Your task to perform on an android device: search for starred emails in the gmail app Image 0: 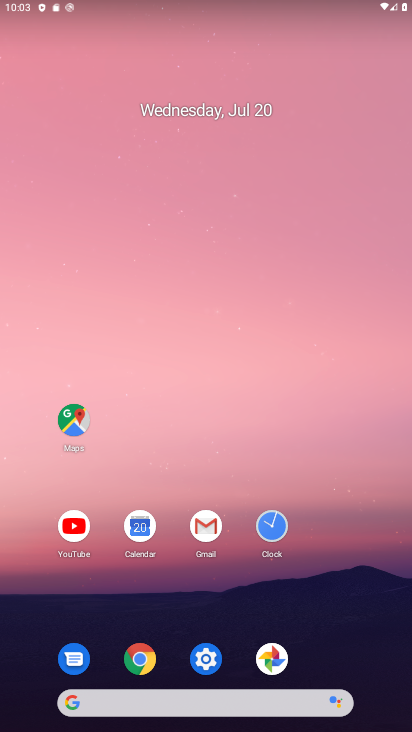
Step 0: click (209, 532)
Your task to perform on an android device: search for starred emails in the gmail app Image 1: 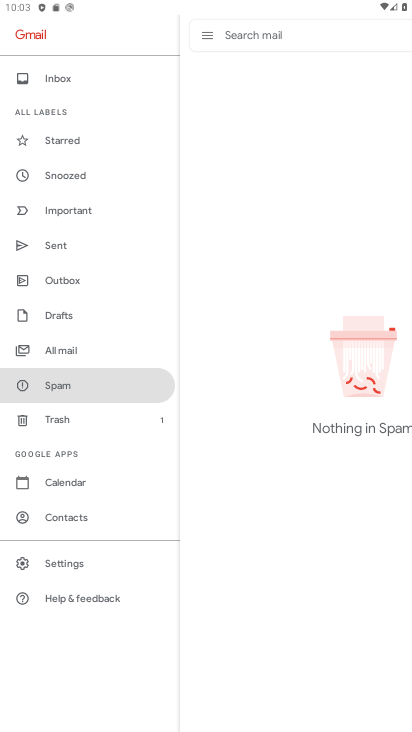
Step 1: click (68, 140)
Your task to perform on an android device: search for starred emails in the gmail app Image 2: 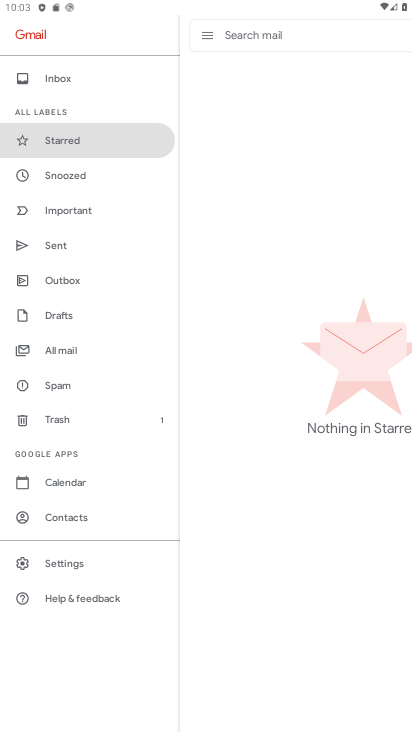
Step 2: task complete